Your task to perform on an android device: Is it going to rain tomorrow? Image 0: 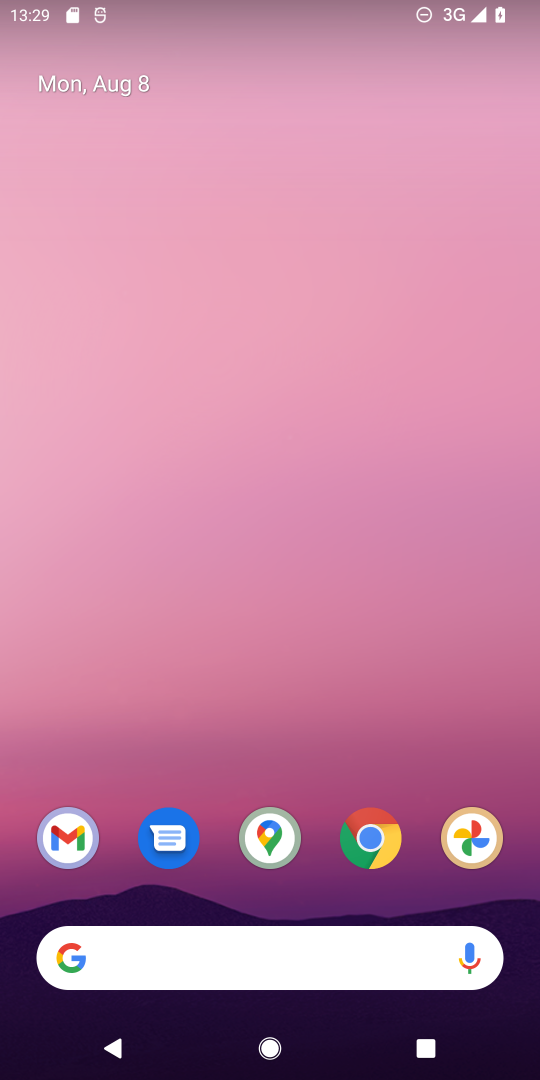
Step 0: press home button
Your task to perform on an android device: Is it going to rain tomorrow? Image 1: 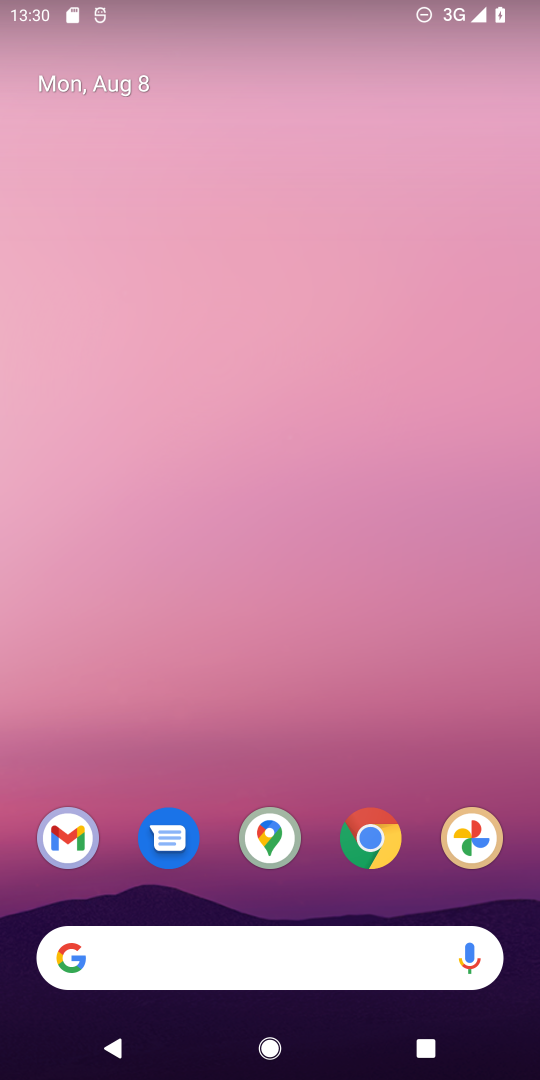
Step 1: click (79, 967)
Your task to perform on an android device: Is it going to rain tomorrow? Image 2: 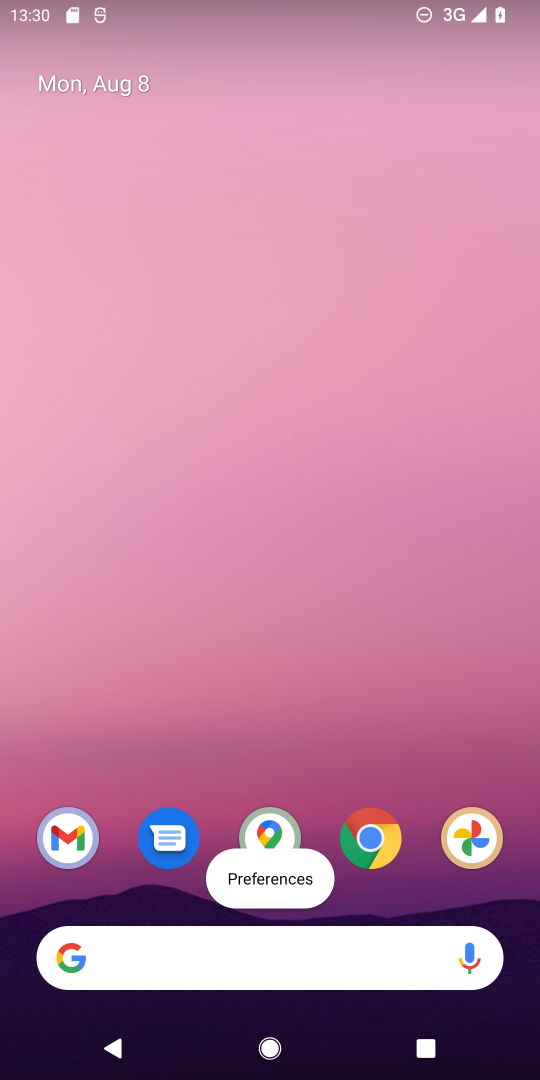
Step 2: click (77, 968)
Your task to perform on an android device: Is it going to rain tomorrow? Image 3: 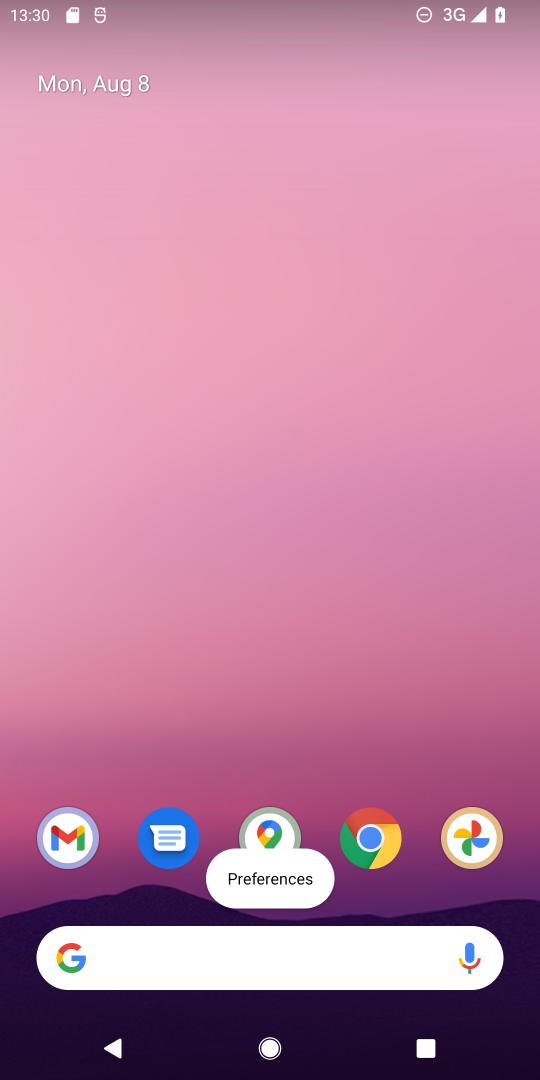
Step 3: drag from (405, 886) to (346, 269)
Your task to perform on an android device: Is it going to rain tomorrow? Image 4: 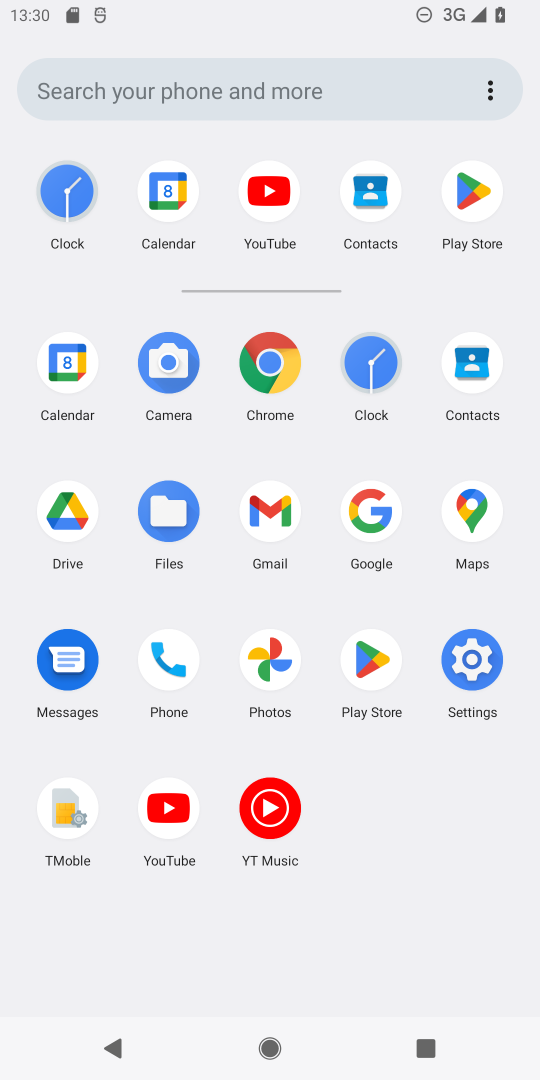
Step 4: click (367, 528)
Your task to perform on an android device: Is it going to rain tomorrow? Image 5: 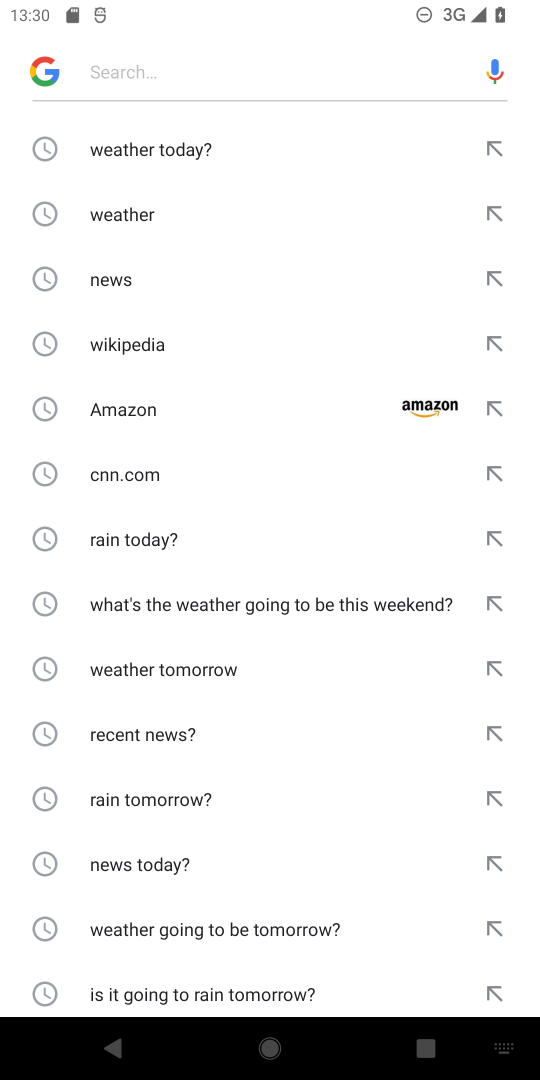
Step 5: click (128, 804)
Your task to perform on an android device: Is it going to rain tomorrow? Image 6: 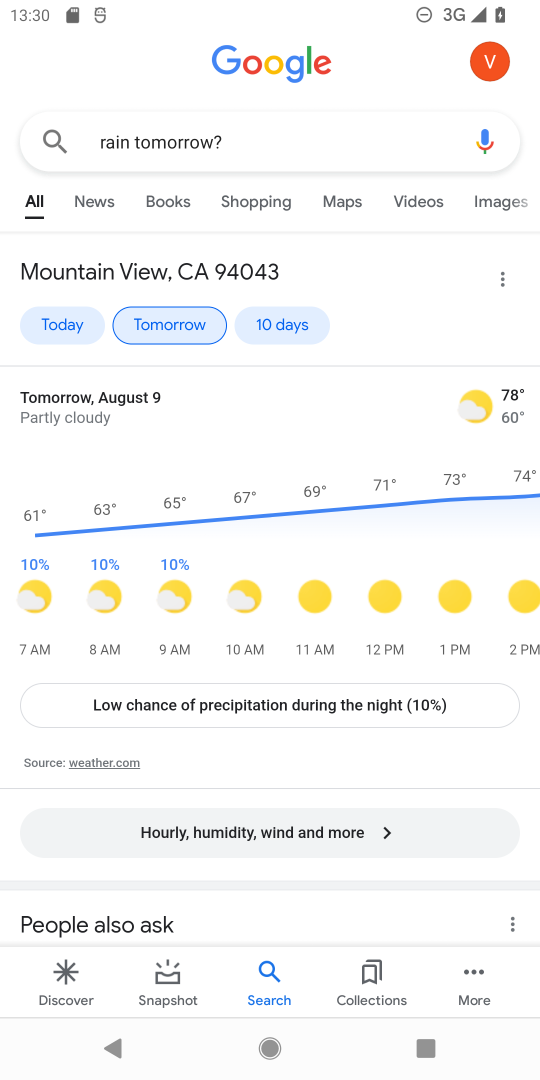
Step 6: task complete